Your task to perform on an android device: Go to CNN.com Image 0: 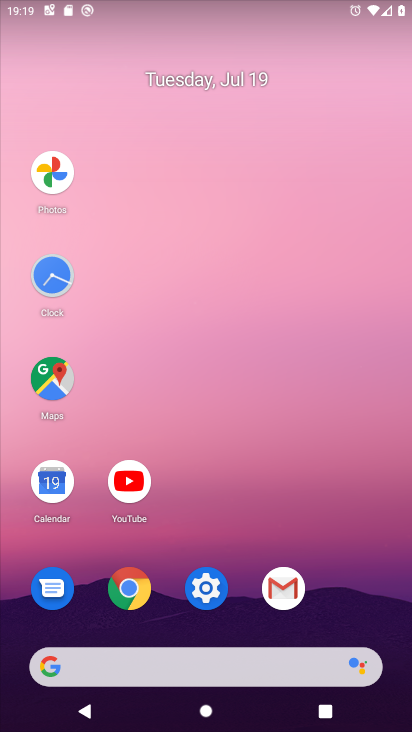
Step 0: click (135, 601)
Your task to perform on an android device: Go to CNN.com Image 1: 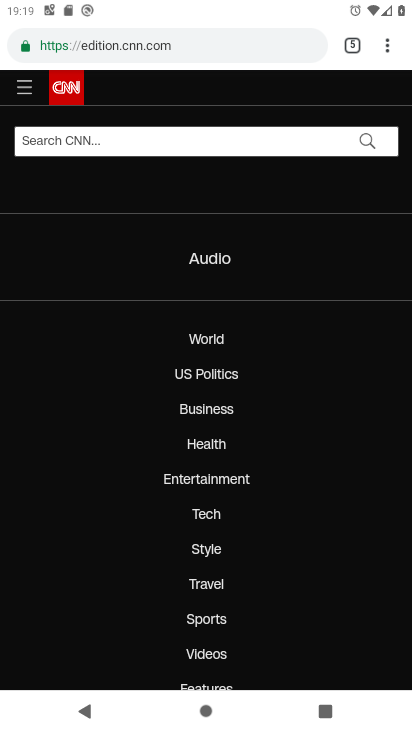
Step 1: task complete